Your task to perform on an android device: Is it going to rain today? Image 0: 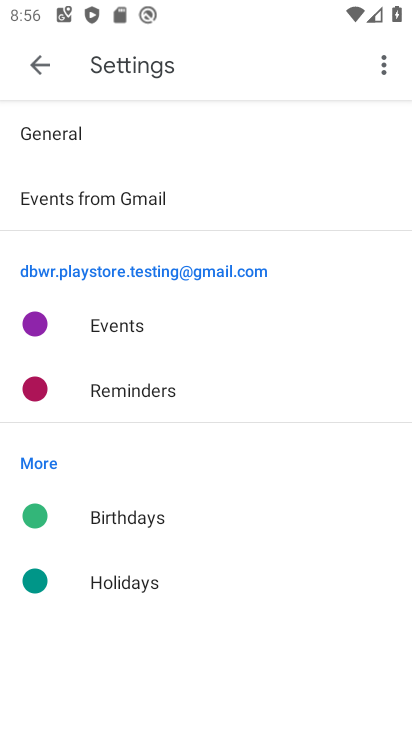
Step 0: click (34, 71)
Your task to perform on an android device: Is it going to rain today? Image 1: 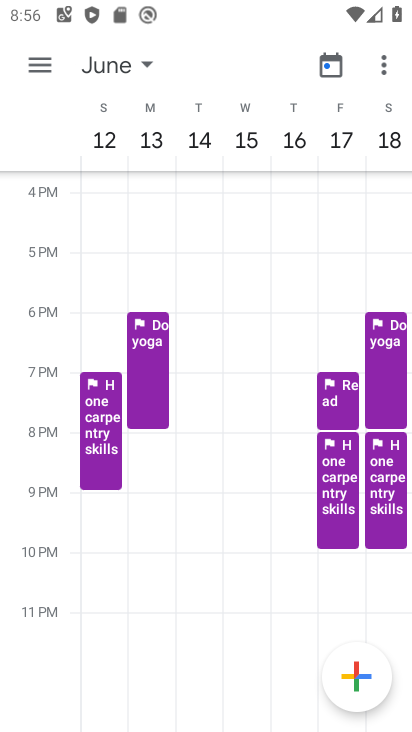
Step 1: press home button
Your task to perform on an android device: Is it going to rain today? Image 2: 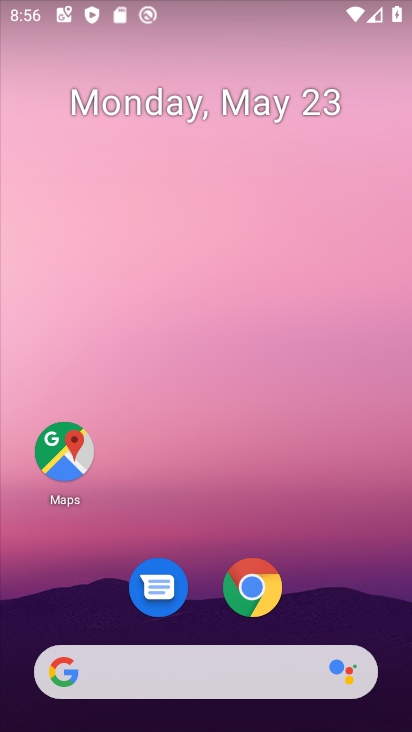
Step 2: click (113, 661)
Your task to perform on an android device: Is it going to rain today? Image 3: 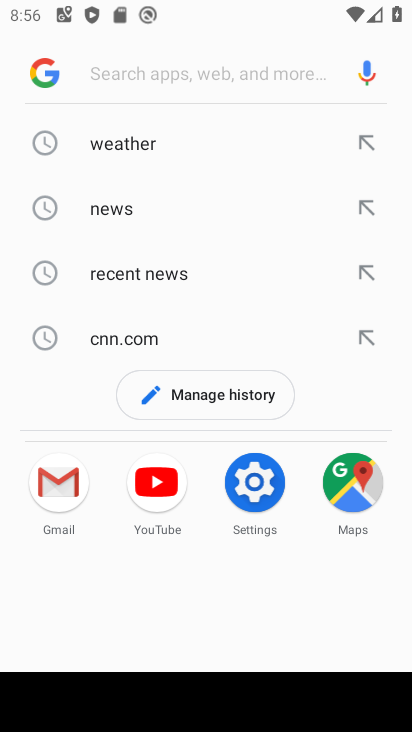
Step 3: click (141, 145)
Your task to perform on an android device: Is it going to rain today? Image 4: 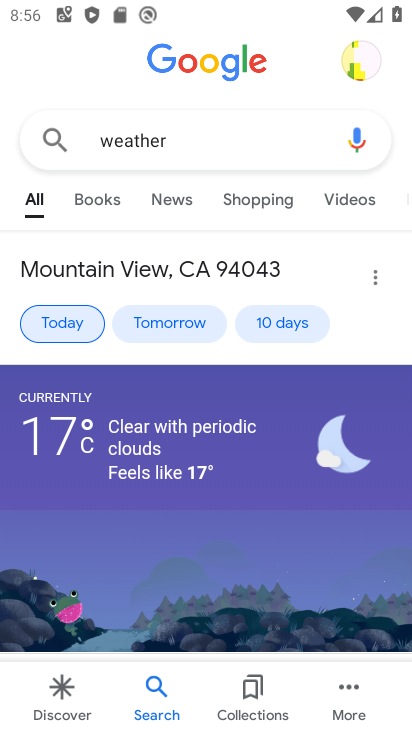
Step 4: task complete